Your task to perform on an android device: Go to ESPN.com Image 0: 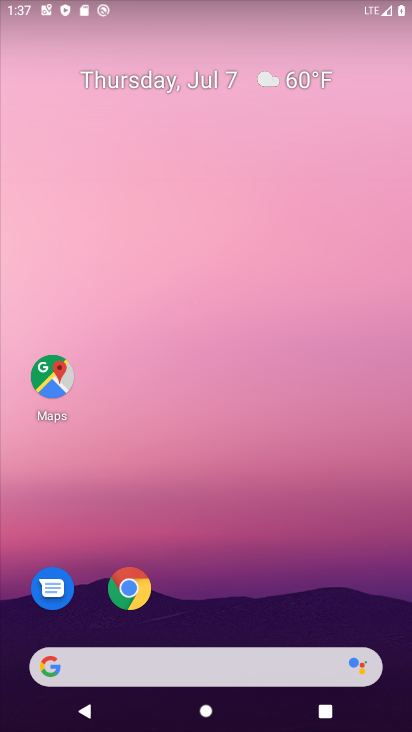
Step 0: drag from (316, 630) to (210, 185)
Your task to perform on an android device: Go to ESPN.com Image 1: 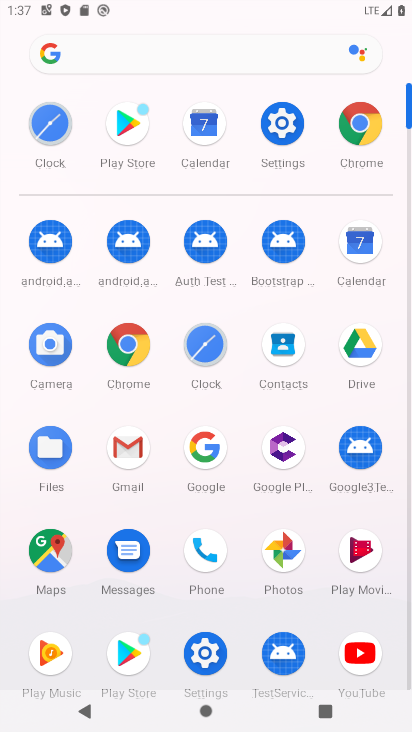
Step 1: click (365, 123)
Your task to perform on an android device: Go to ESPN.com Image 2: 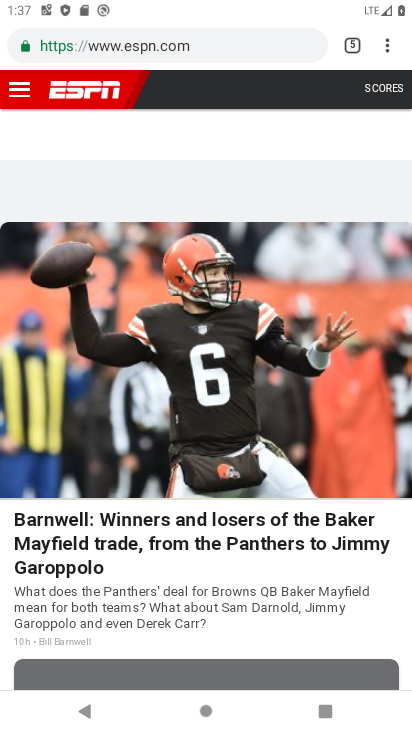
Step 2: task complete